Your task to perform on an android device: turn notification dots on Image 0: 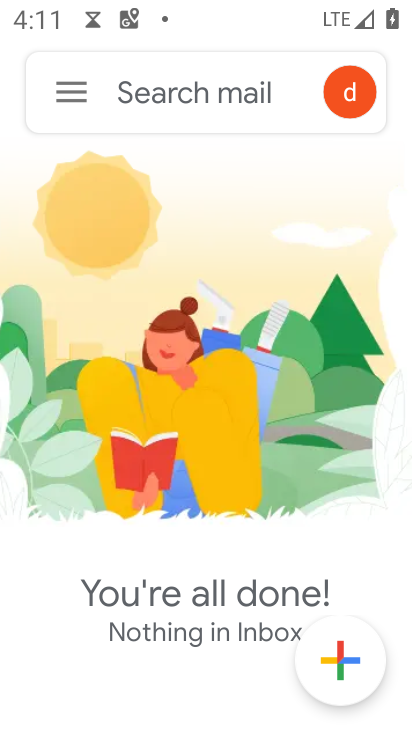
Step 0: press home button
Your task to perform on an android device: turn notification dots on Image 1: 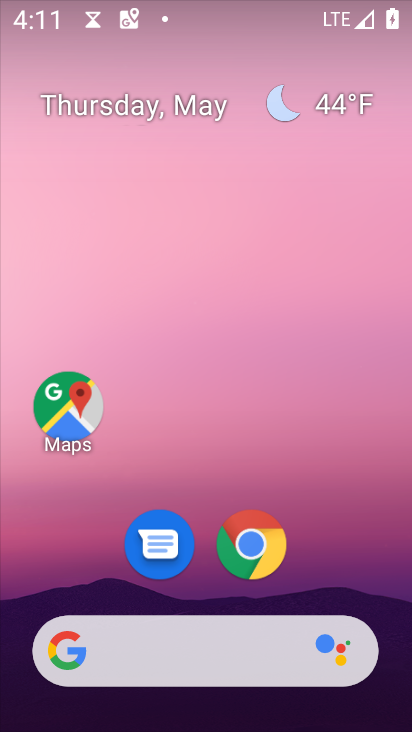
Step 1: drag from (320, 566) to (331, 95)
Your task to perform on an android device: turn notification dots on Image 2: 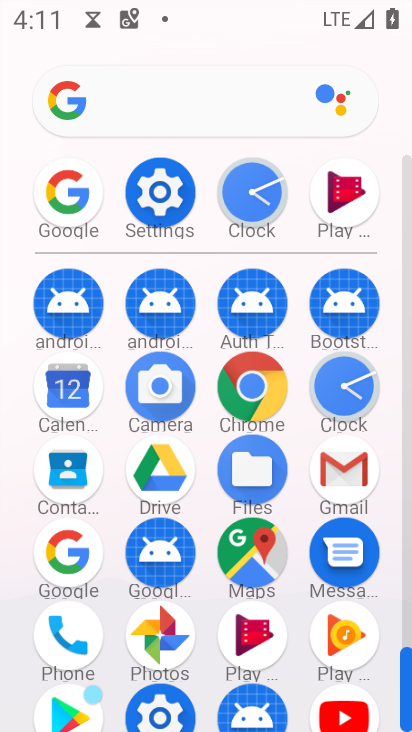
Step 2: click (151, 182)
Your task to perform on an android device: turn notification dots on Image 3: 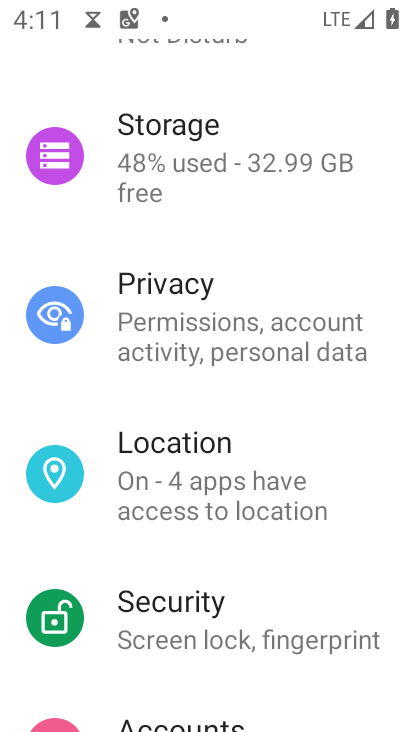
Step 3: drag from (229, 344) to (254, 506)
Your task to perform on an android device: turn notification dots on Image 4: 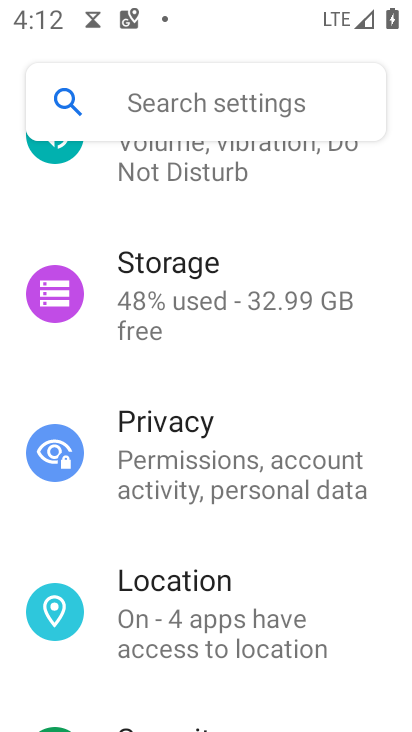
Step 4: drag from (212, 316) to (218, 465)
Your task to perform on an android device: turn notification dots on Image 5: 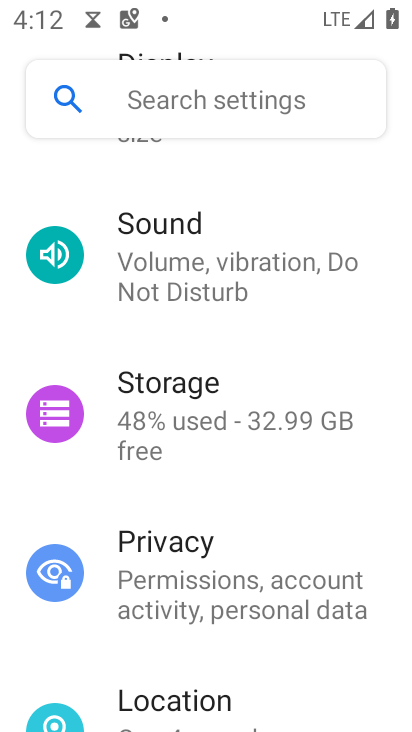
Step 5: drag from (171, 317) to (149, 477)
Your task to perform on an android device: turn notification dots on Image 6: 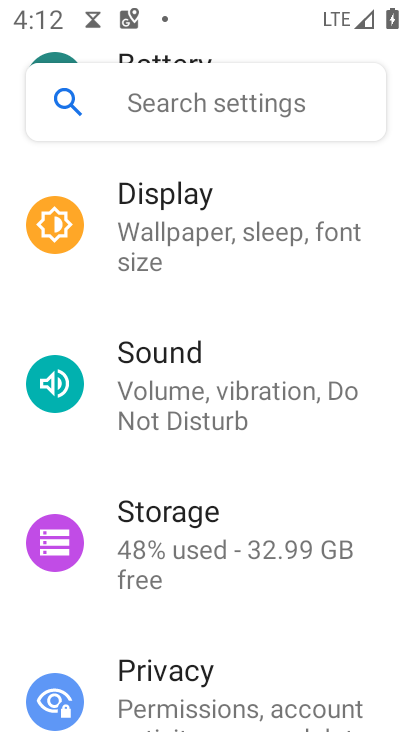
Step 6: drag from (145, 354) to (170, 472)
Your task to perform on an android device: turn notification dots on Image 7: 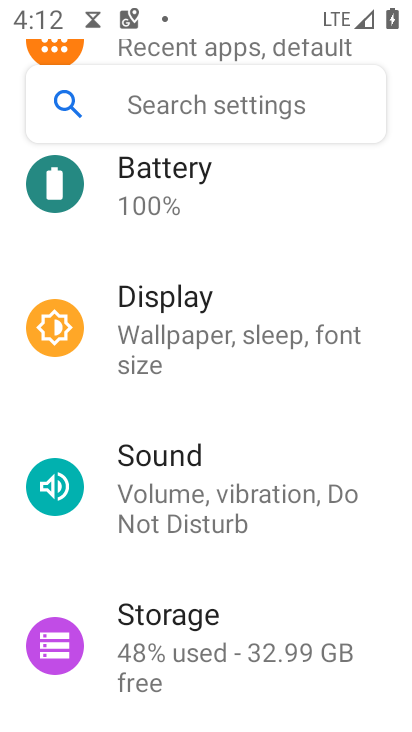
Step 7: drag from (207, 313) to (246, 442)
Your task to perform on an android device: turn notification dots on Image 8: 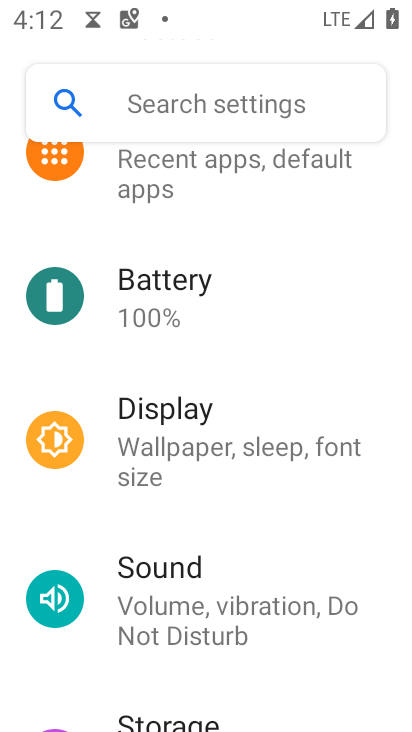
Step 8: drag from (264, 320) to (285, 448)
Your task to perform on an android device: turn notification dots on Image 9: 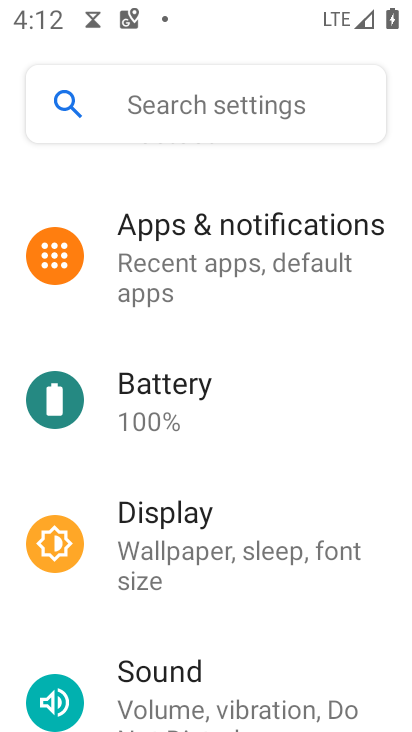
Step 9: click (245, 275)
Your task to perform on an android device: turn notification dots on Image 10: 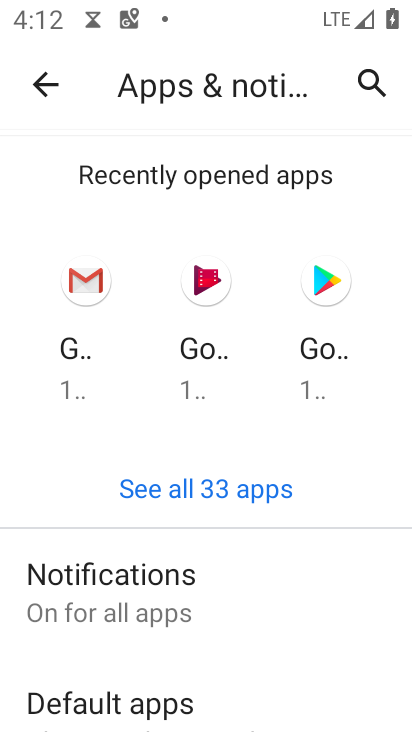
Step 10: click (168, 555)
Your task to perform on an android device: turn notification dots on Image 11: 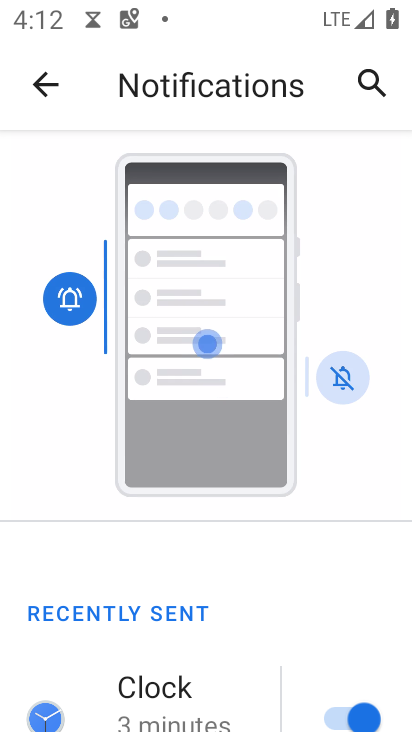
Step 11: drag from (146, 696) to (196, 427)
Your task to perform on an android device: turn notification dots on Image 12: 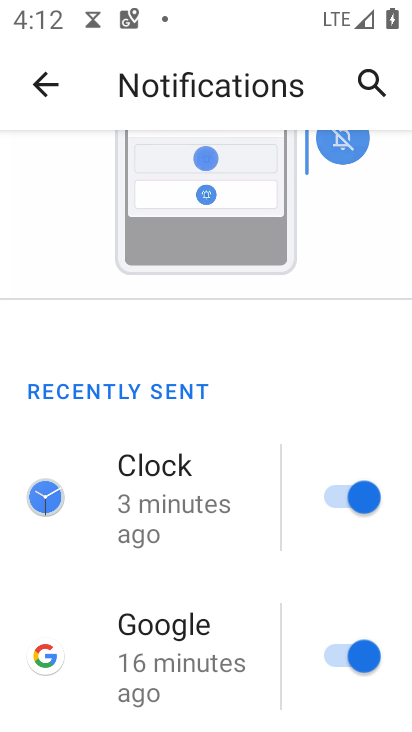
Step 12: drag from (210, 612) to (197, 331)
Your task to perform on an android device: turn notification dots on Image 13: 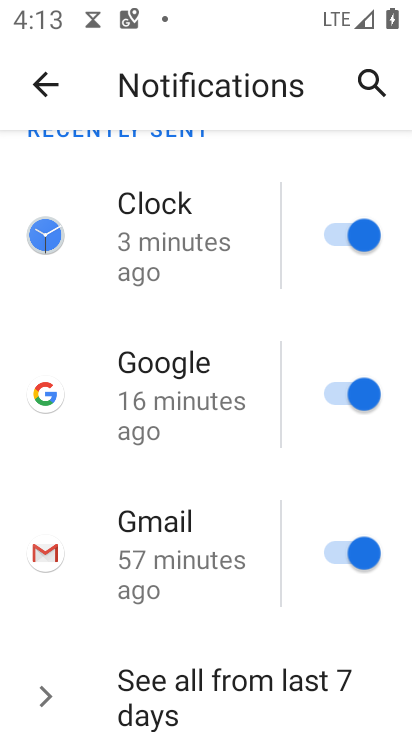
Step 13: drag from (197, 624) to (207, 337)
Your task to perform on an android device: turn notification dots on Image 14: 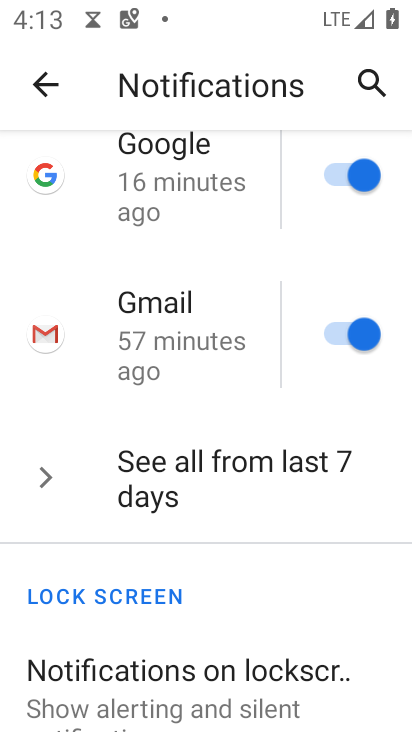
Step 14: drag from (145, 680) to (178, 355)
Your task to perform on an android device: turn notification dots on Image 15: 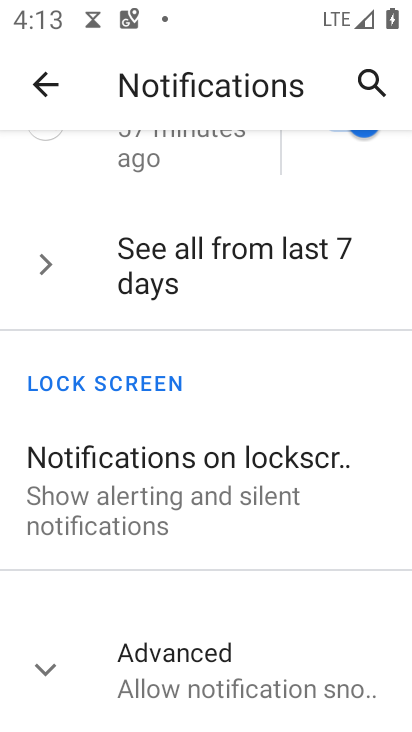
Step 15: click (262, 650)
Your task to perform on an android device: turn notification dots on Image 16: 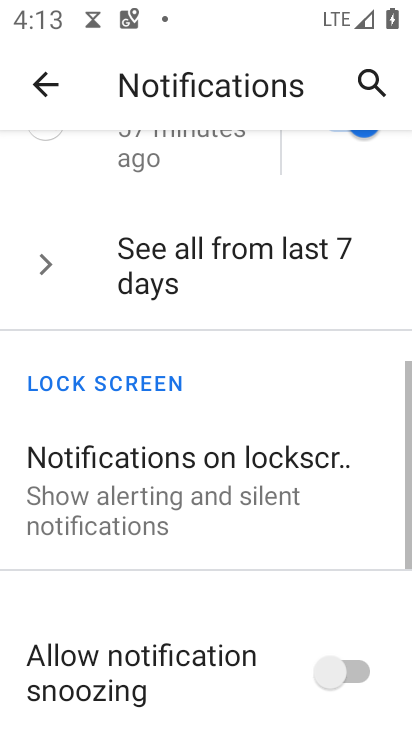
Step 16: task complete